Your task to perform on an android device: turn off data saver in the chrome app Image 0: 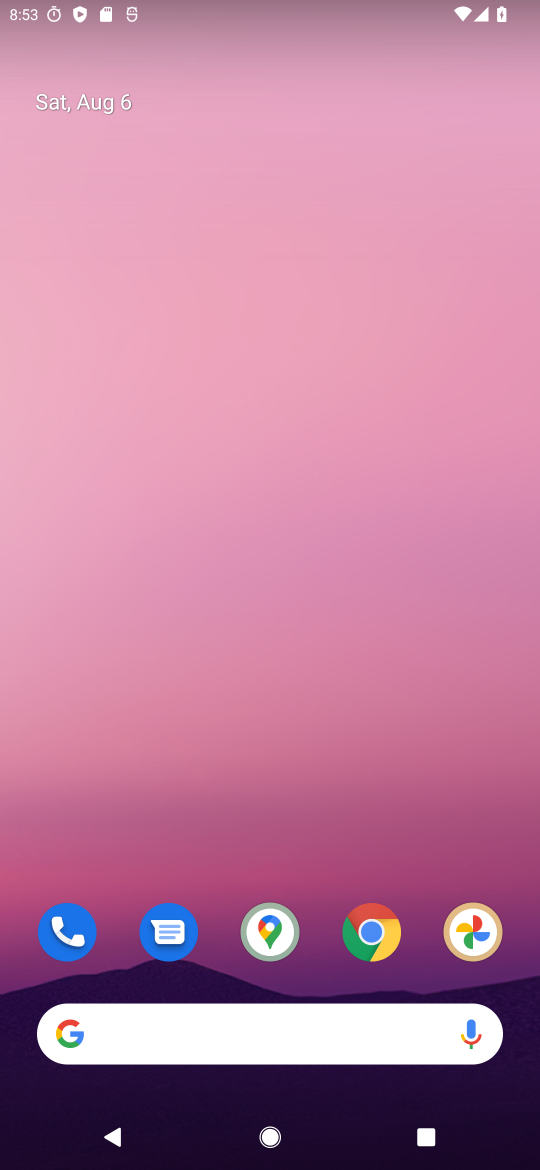
Step 0: click (368, 918)
Your task to perform on an android device: turn off data saver in the chrome app Image 1: 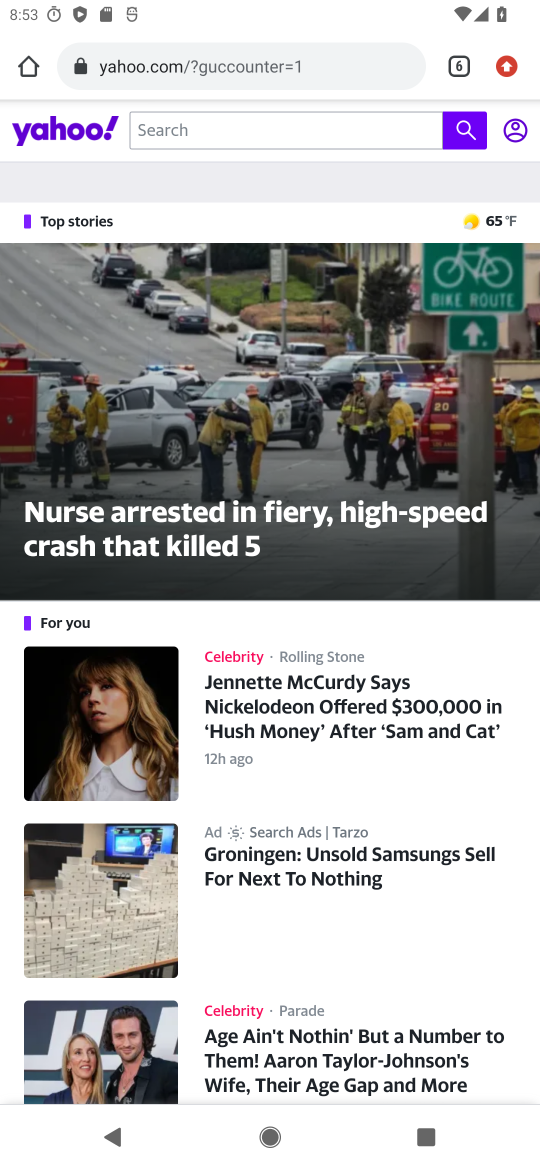
Step 1: drag from (504, 78) to (384, 853)
Your task to perform on an android device: turn off data saver in the chrome app Image 2: 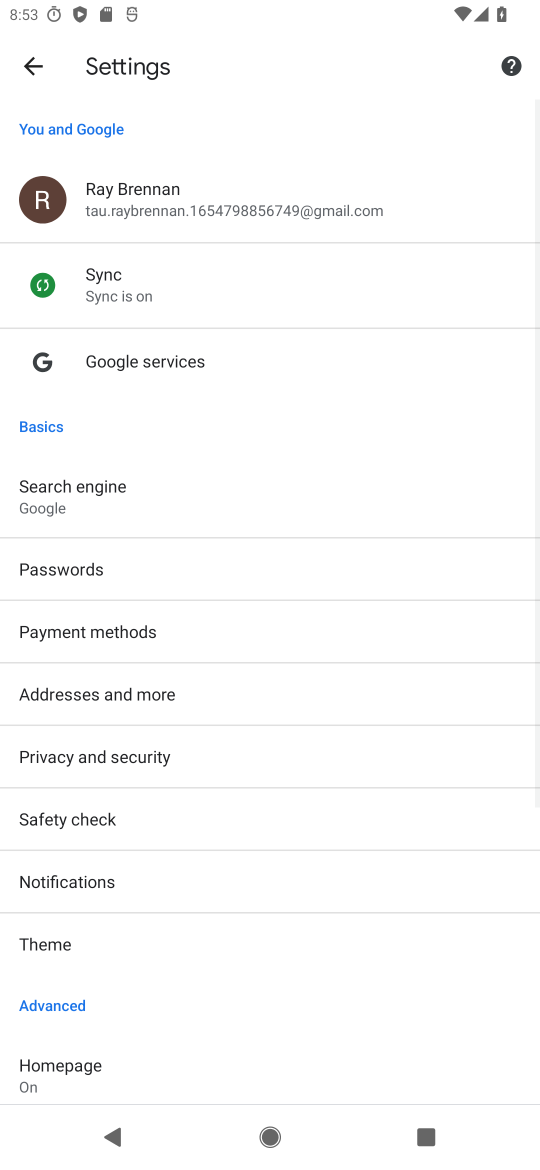
Step 2: drag from (284, 868) to (464, 146)
Your task to perform on an android device: turn off data saver in the chrome app Image 3: 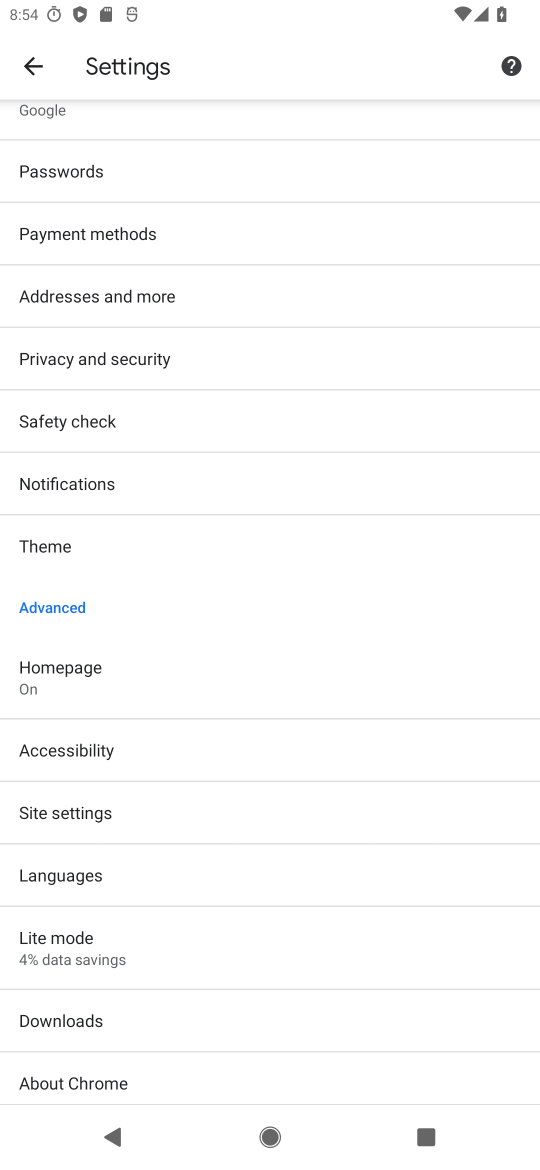
Step 3: click (119, 938)
Your task to perform on an android device: turn off data saver in the chrome app Image 4: 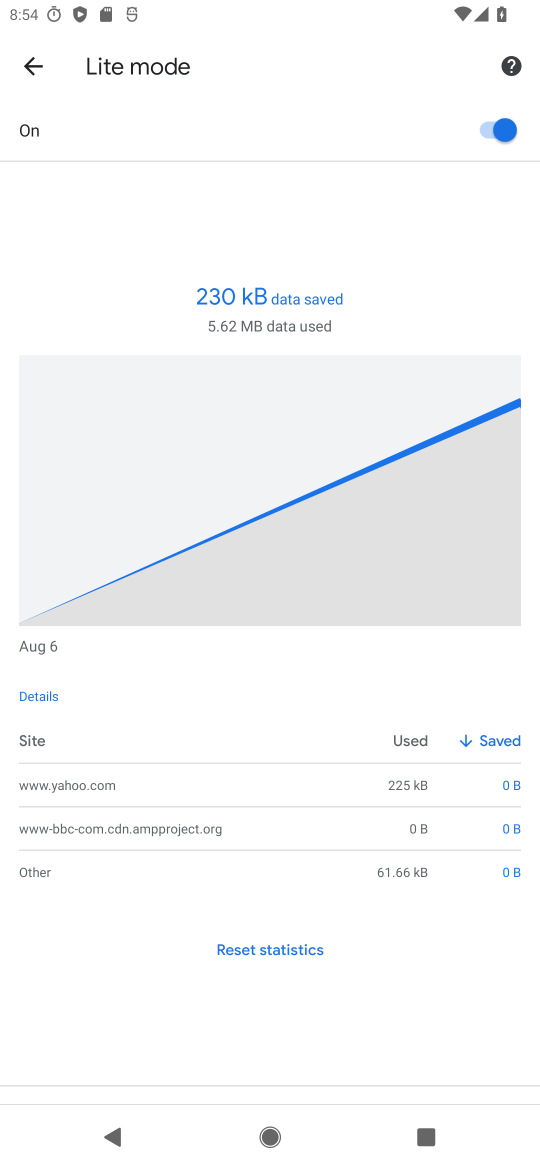
Step 4: click (490, 123)
Your task to perform on an android device: turn off data saver in the chrome app Image 5: 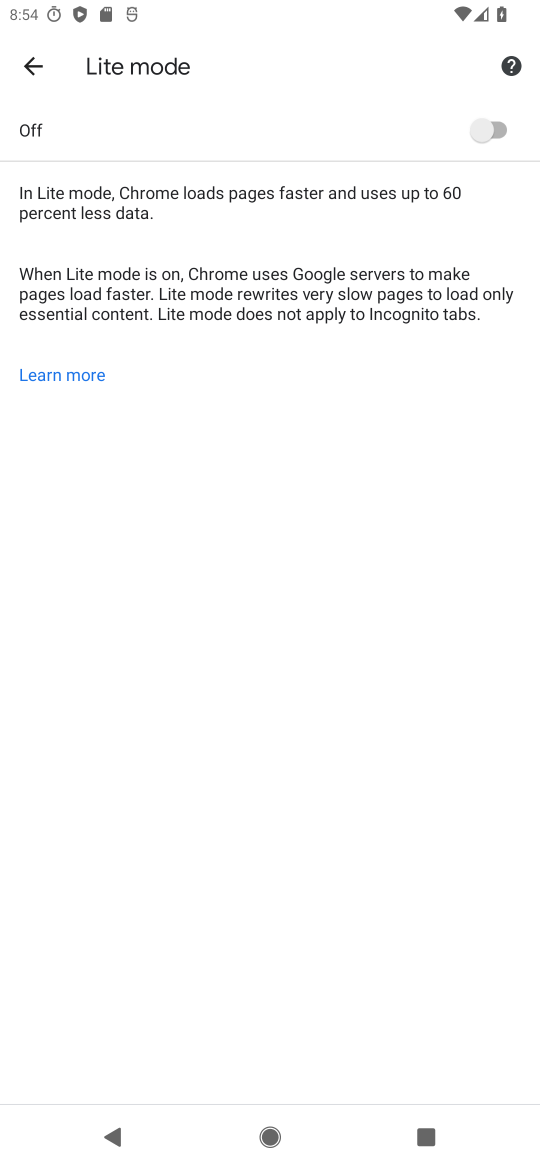
Step 5: task complete